Your task to perform on an android device: check data usage Image 0: 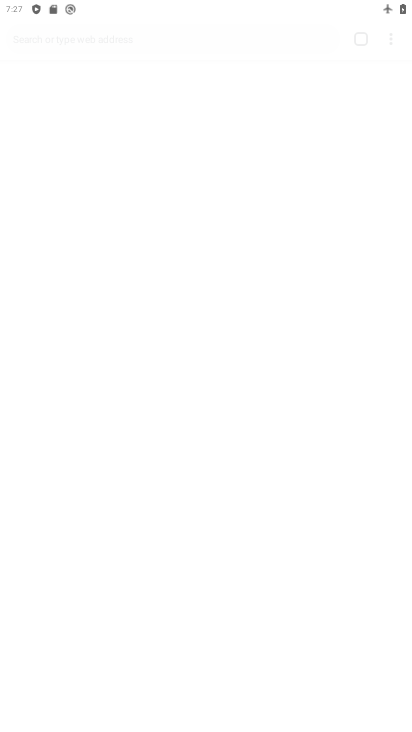
Step 0: drag from (321, 588) to (268, 73)
Your task to perform on an android device: check data usage Image 1: 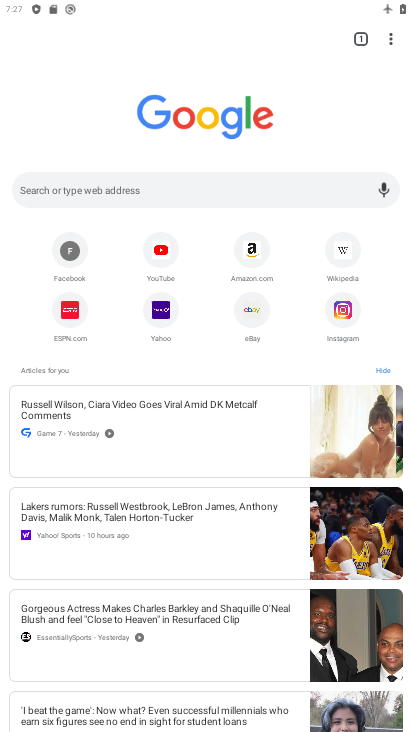
Step 1: press home button
Your task to perform on an android device: check data usage Image 2: 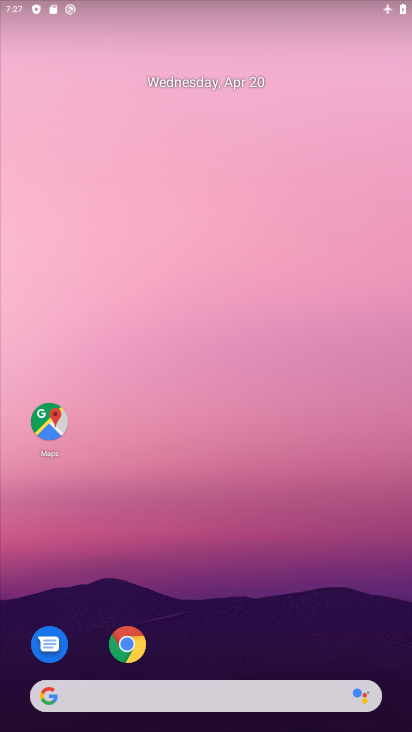
Step 2: drag from (329, 618) to (265, 107)
Your task to perform on an android device: check data usage Image 3: 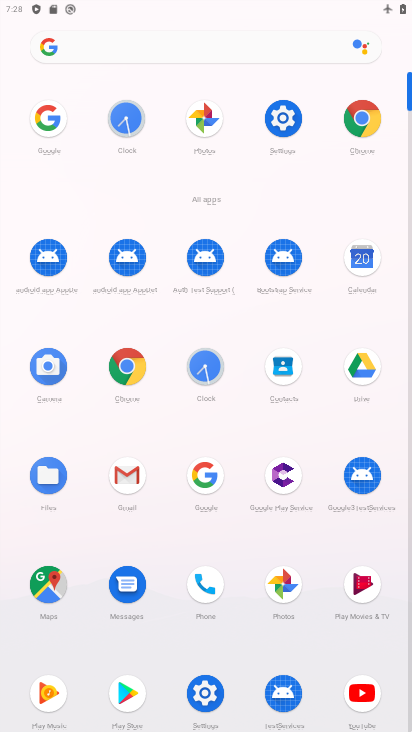
Step 3: click (213, 697)
Your task to perform on an android device: check data usage Image 4: 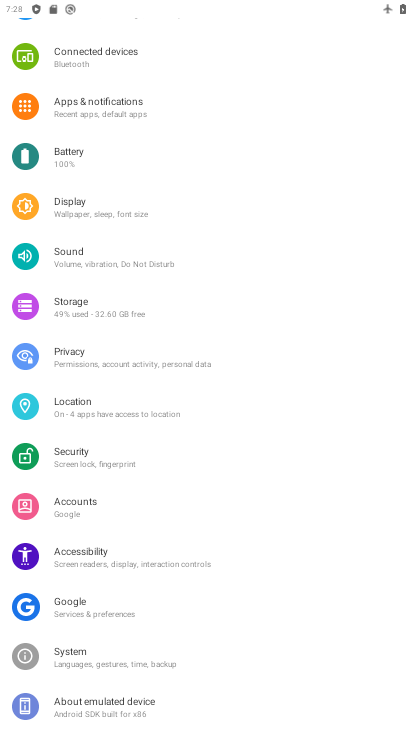
Step 4: drag from (199, 112) to (202, 500)
Your task to perform on an android device: check data usage Image 5: 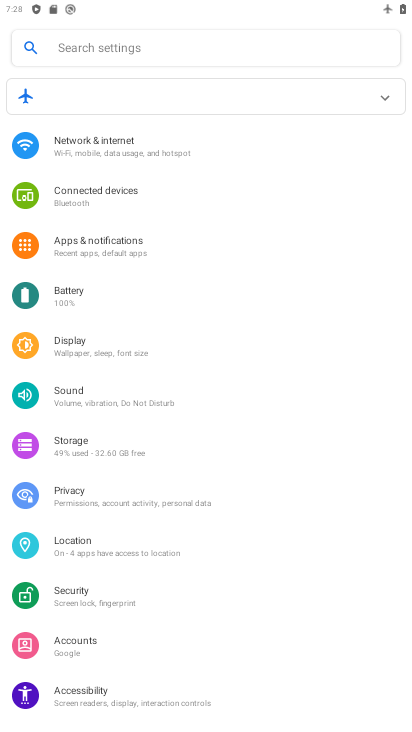
Step 5: click (174, 152)
Your task to perform on an android device: check data usage Image 6: 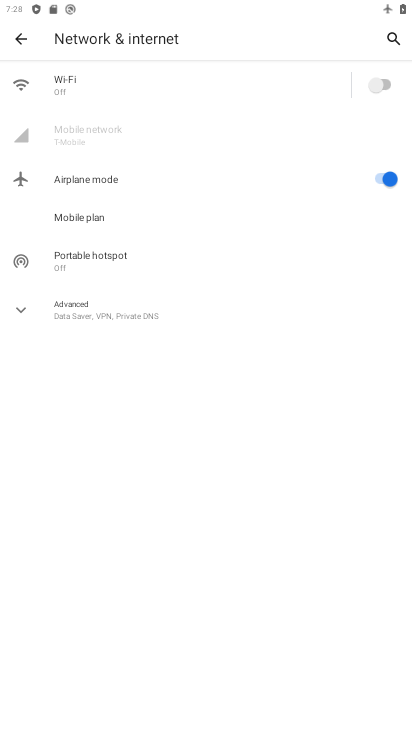
Step 6: click (386, 131)
Your task to perform on an android device: check data usage Image 7: 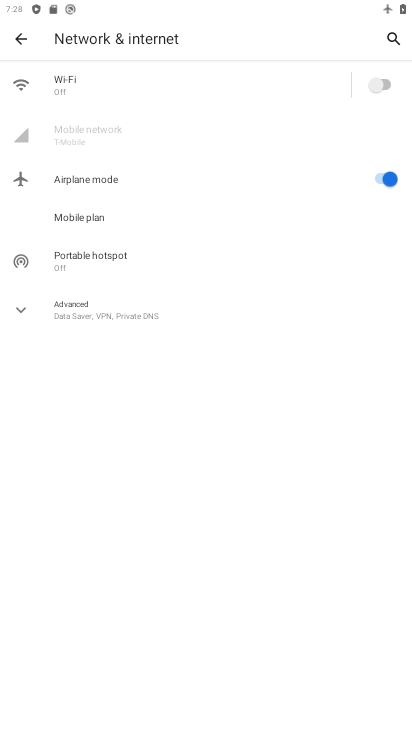
Step 7: task complete